Your task to perform on an android device: Open the Play Movies app and select the watchlist tab. Image 0: 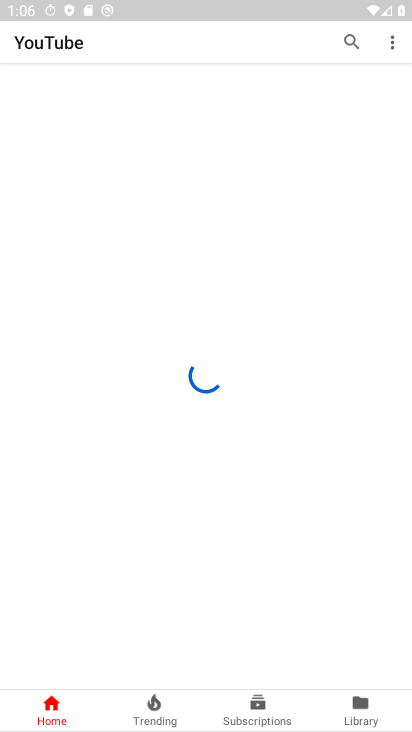
Step 0: press home button
Your task to perform on an android device: Open the Play Movies app and select the watchlist tab. Image 1: 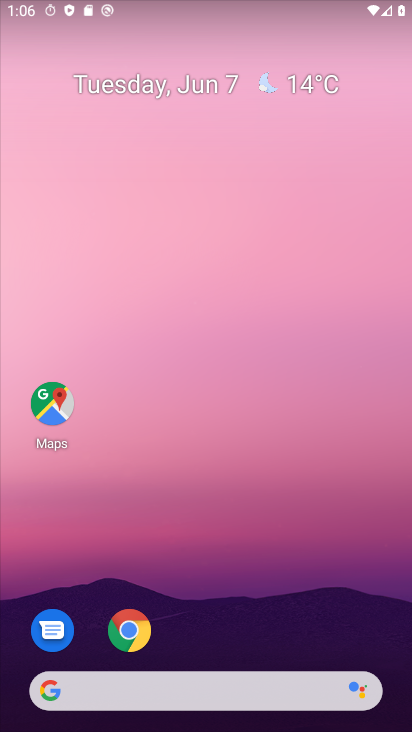
Step 1: drag from (208, 662) to (253, 23)
Your task to perform on an android device: Open the Play Movies app and select the watchlist tab. Image 2: 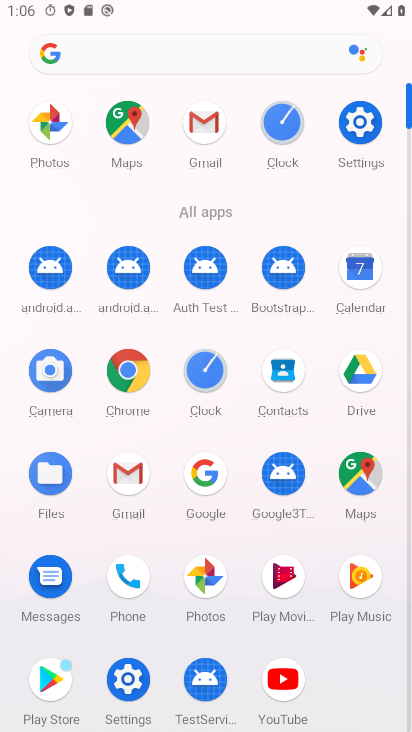
Step 2: click (288, 583)
Your task to perform on an android device: Open the Play Movies app and select the watchlist tab. Image 3: 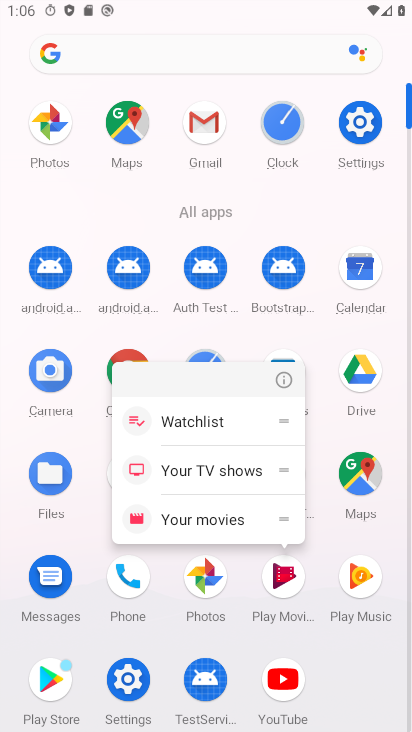
Step 3: click (281, 586)
Your task to perform on an android device: Open the Play Movies app and select the watchlist tab. Image 4: 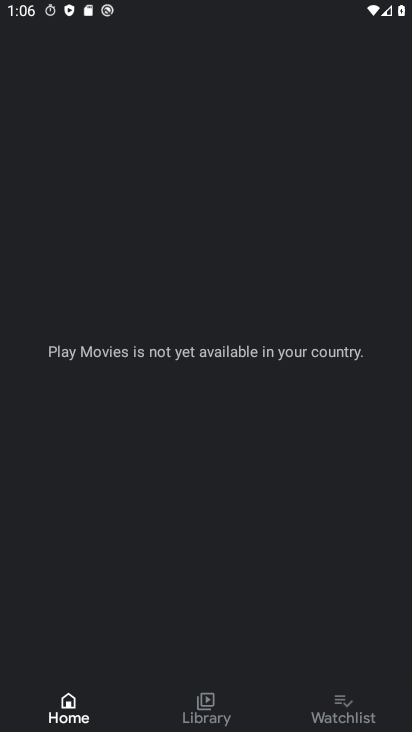
Step 4: click (332, 711)
Your task to perform on an android device: Open the Play Movies app and select the watchlist tab. Image 5: 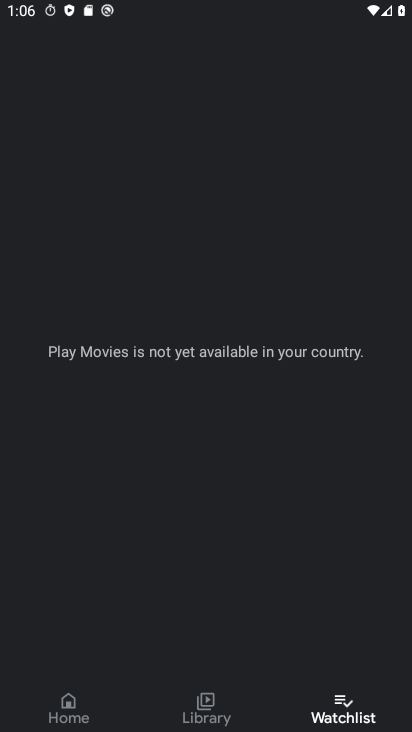
Step 5: task complete